Your task to perform on an android device: change notifications settings Image 0: 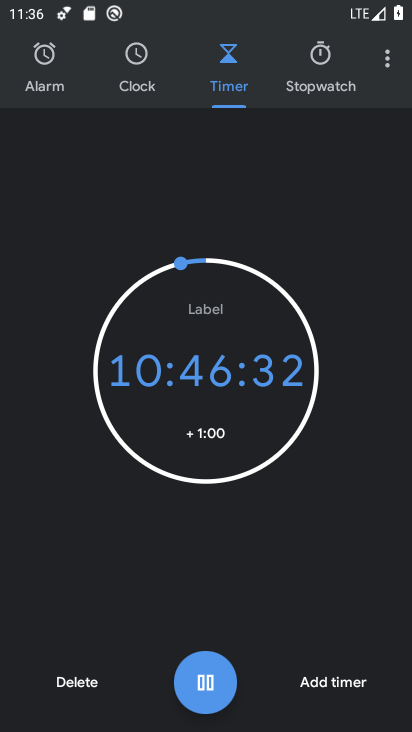
Step 0: press home button
Your task to perform on an android device: change notifications settings Image 1: 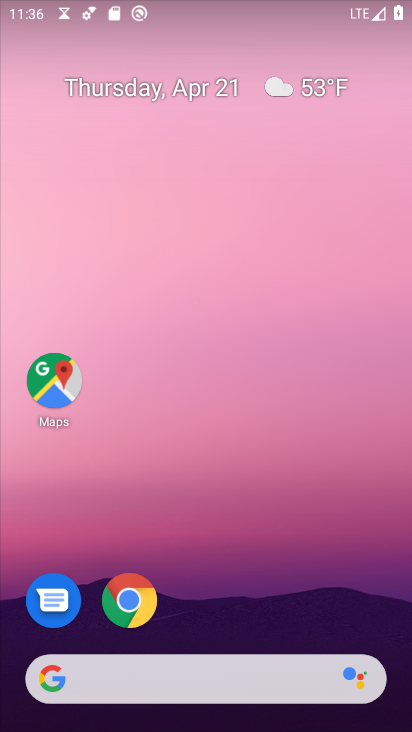
Step 1: drag from (250, 382) to (217, 78)
Your task to perform on an android device: change notifications settings Image 2: 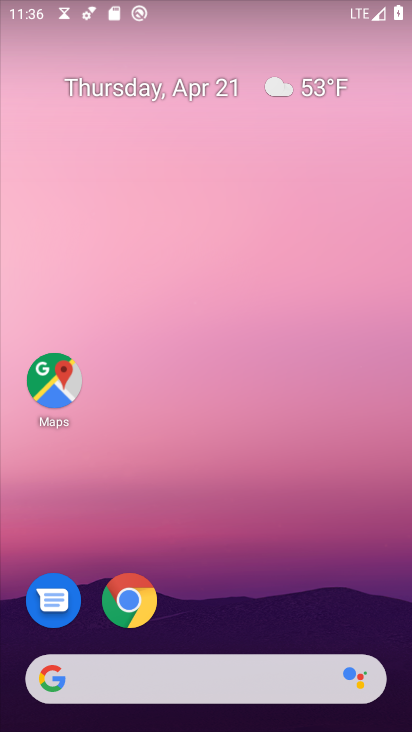
Step 2: drag from (246, 418) to (231, 41)
Your task to perform on an android device: change notifications settings Image 3: 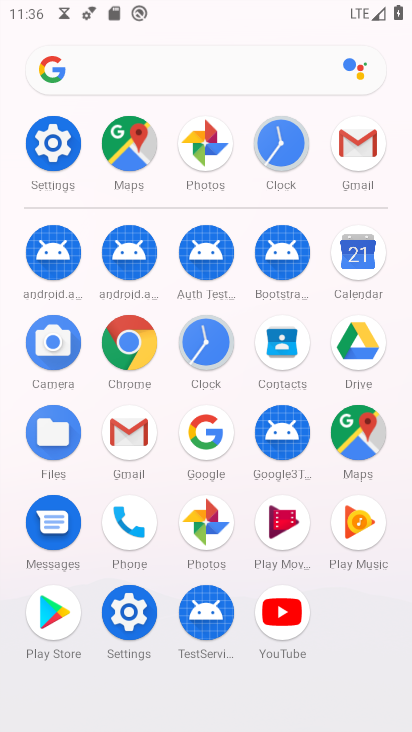
Step 3: click (56, 145)
Your task to perform on an android device: change notifications settings Image 4: 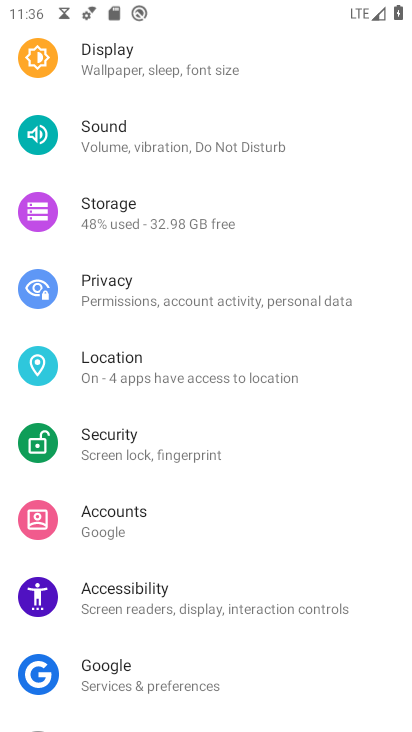
Step 4: drag from (243, 143) to (248, 607)
Your task to perform on an android device: change notifications settings Image 5: 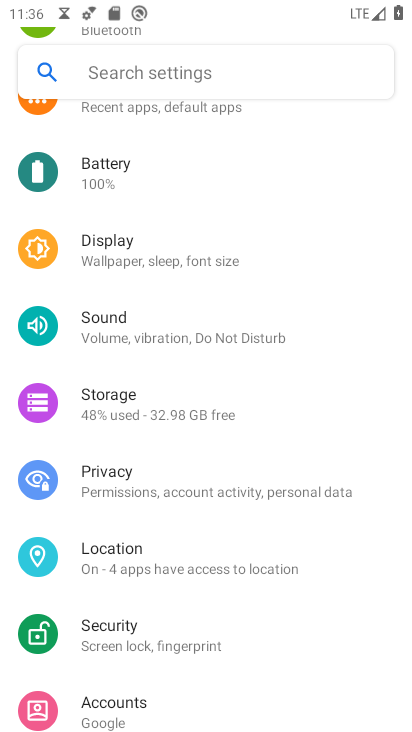
Step 5: drag from (220, 215) to (221, 581)
Your task to perform on an android device: change notifications settings Image 6: 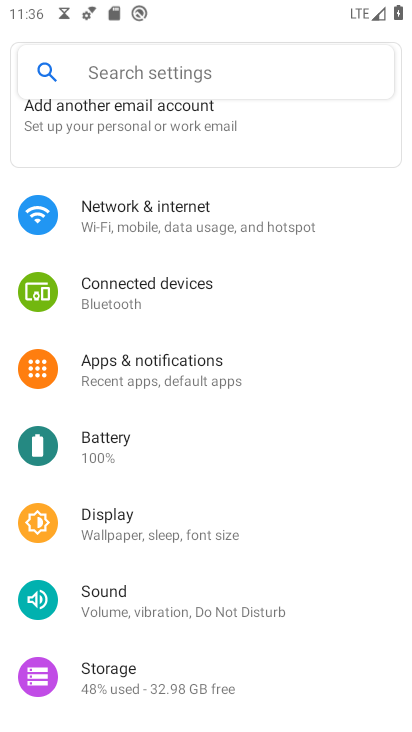
Step 6: click (191, 373)
Your task to perform on an android device: change notifications settings Image 7: 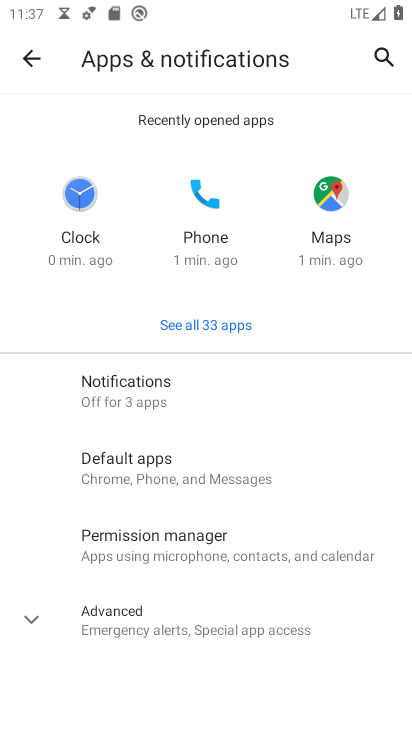
Step 7: click (275, 404)
Your task to perform on an android device: change notifications settings Image 8: 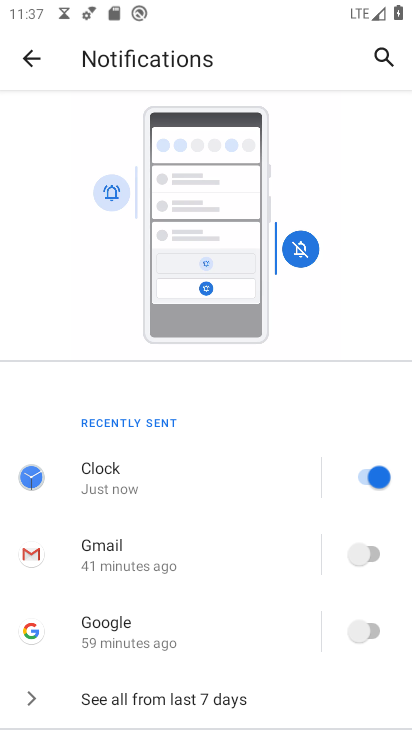
Step 8: click (369, 483)
Your task to perform on an android device: change notifications settings Image 9: 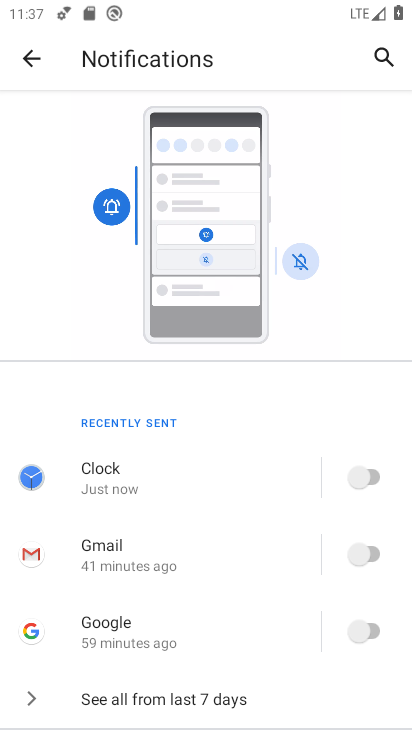
Step 9: task complete